Your task to perform on an android device: Open the calculator Image 0: 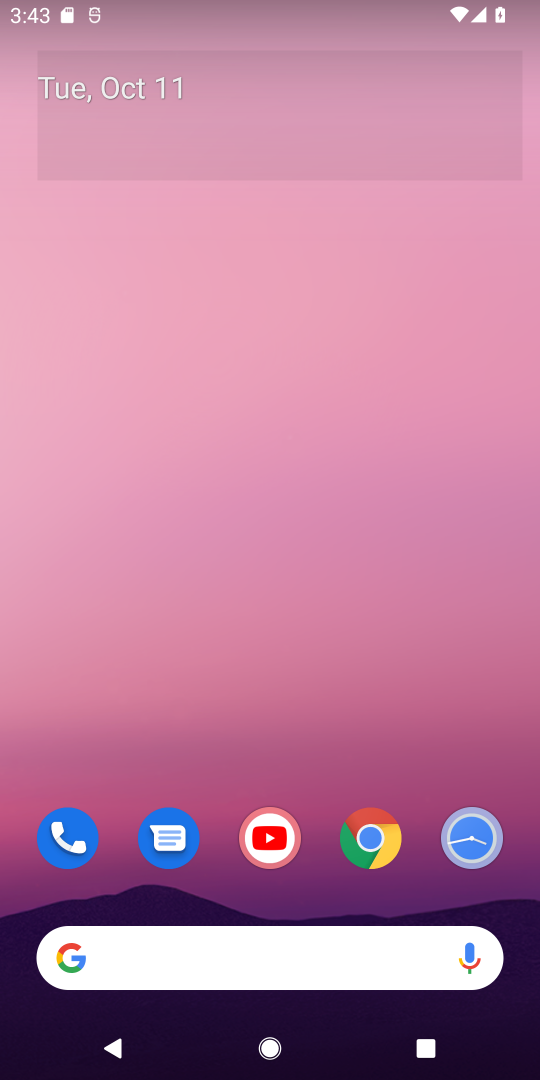
Step 0: drag from (287, 763) to (252, 192)
Your task to perform on an android device: Open the calculator Image 1: 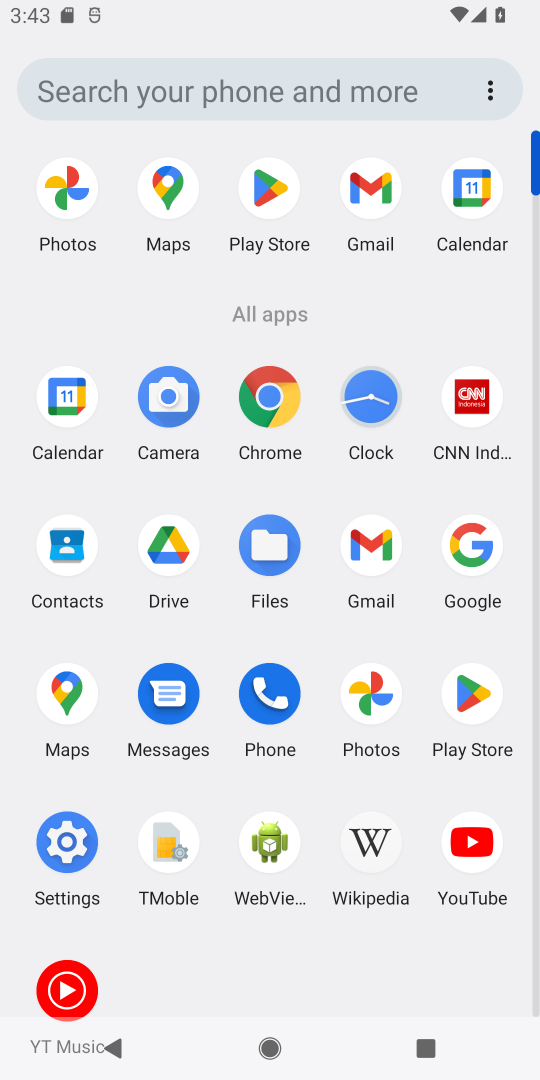
Step 1: task complete